Your task to perform on an android device: turn off sleep mode Image 0: 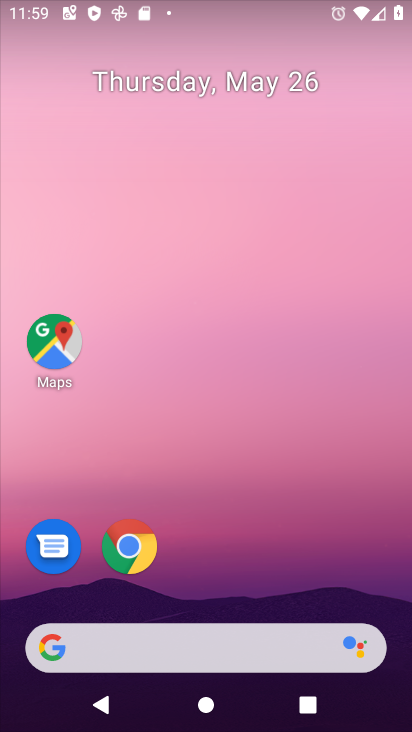
Step 0: drag from (221, 573) to (238, 96)
Your task to perform on an android device: turn off sleep mode Image 1: 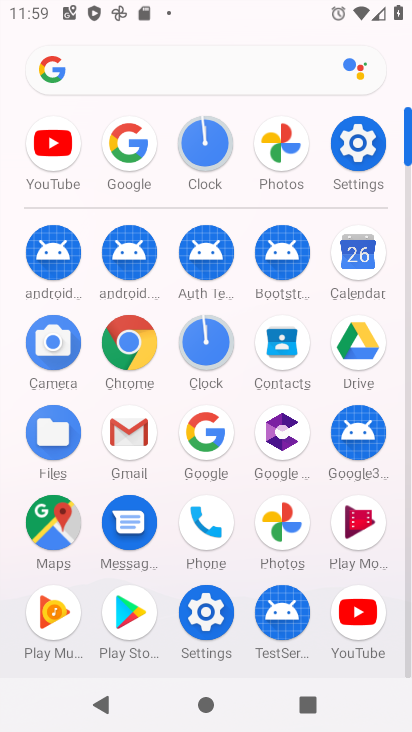
Step 1: click (203, 613)
Your task to perform on an android device: turn off sleep mode Image 2: 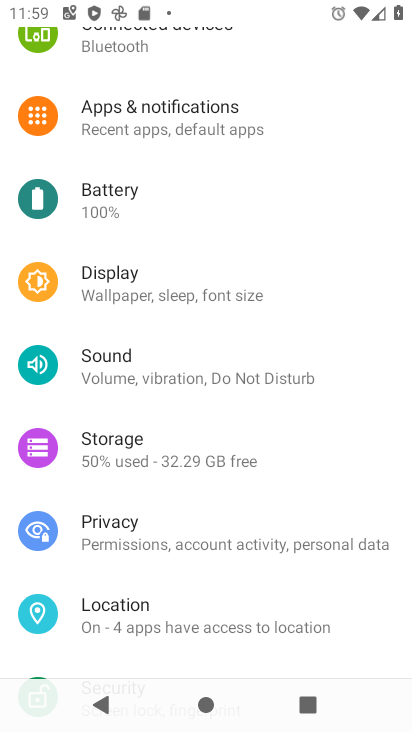
Step 2: click (197, 293)
Your task to perform on an android device: turn off sleep mode Image 3: 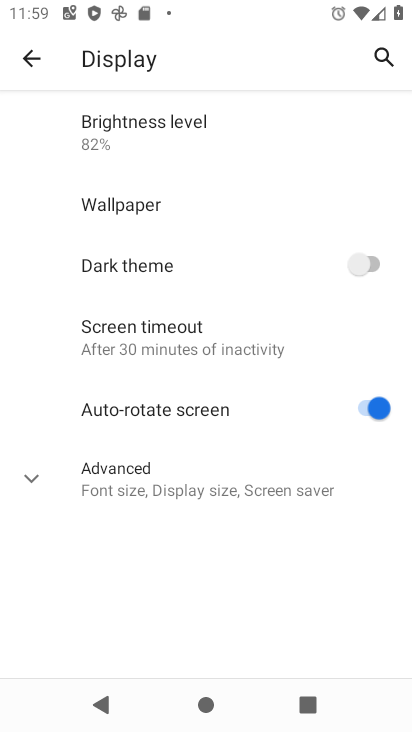
Step 3: click (149, 345)
Your task to perform on an android device: turn off sleep mode Image 4: 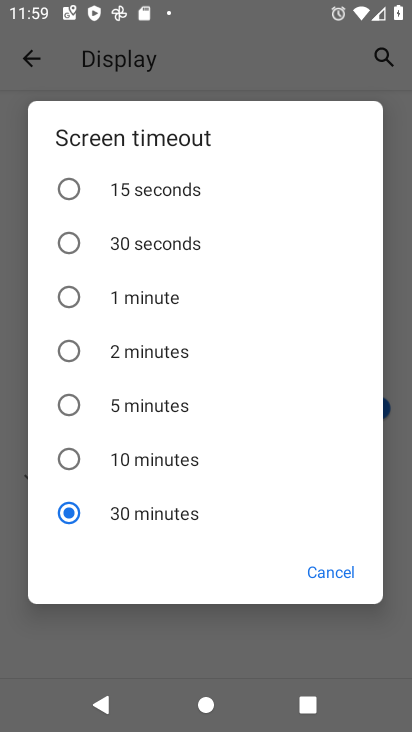
Step 4: task complete